Your task to perform on an android device: Go to CNN.com Image 0: 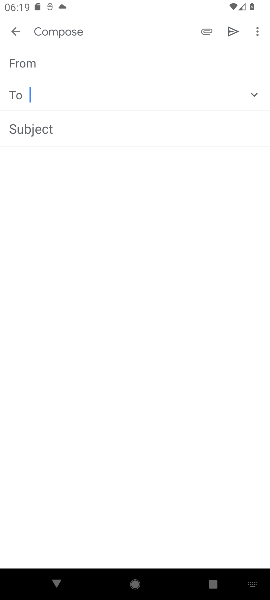
Step 0: press home button
Your task to perform on an android device: Go to CNN.com Image 1: 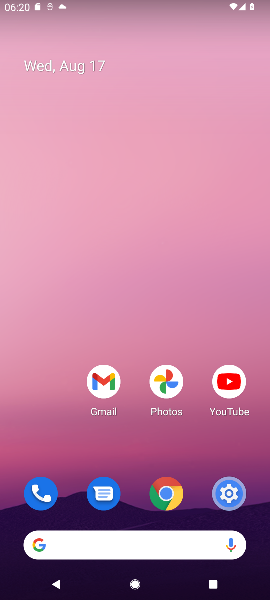
Step 1: click (31, 552)
Your task to perform on an android device: Go to CNN.com Image 2: 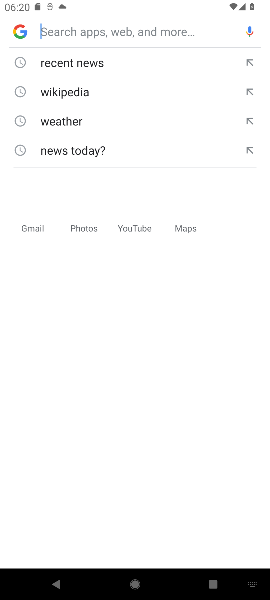
Step 2: type "CNN.com"
Your task to perform on an android device: Go to CNN.com Image 3: 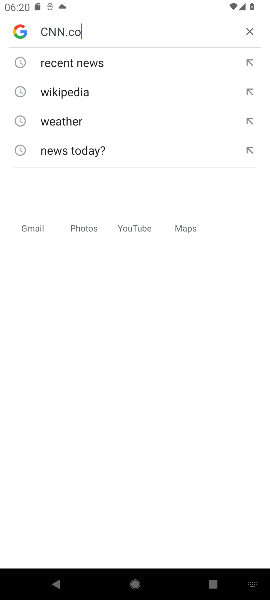
Step 3: press enter
Your task to perform on an android device: Go to CNN.com Image 4: 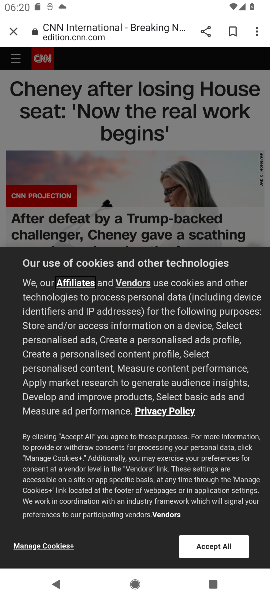
Step 4: click (219, 542)
Your task to perform on an android device: Go to CNN.com Image 5: 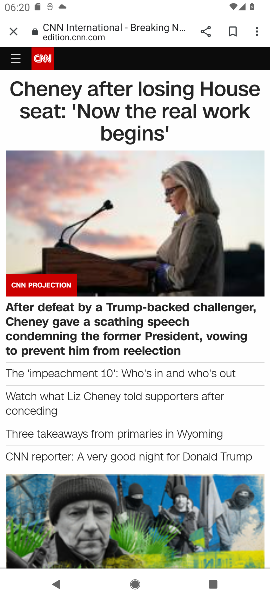
Step 5: task complete